Your task to perform on an android device: Do I have any events tomorrow? Image 0: 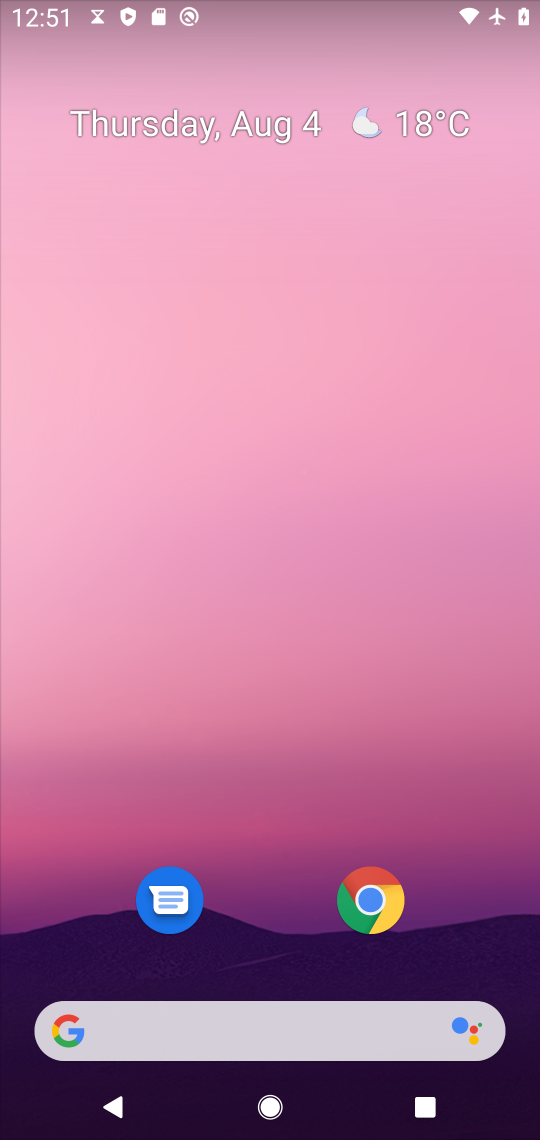
Step 0: press home button
Your task to perform on an android device: Do I have any events tomorrow? Image 1: 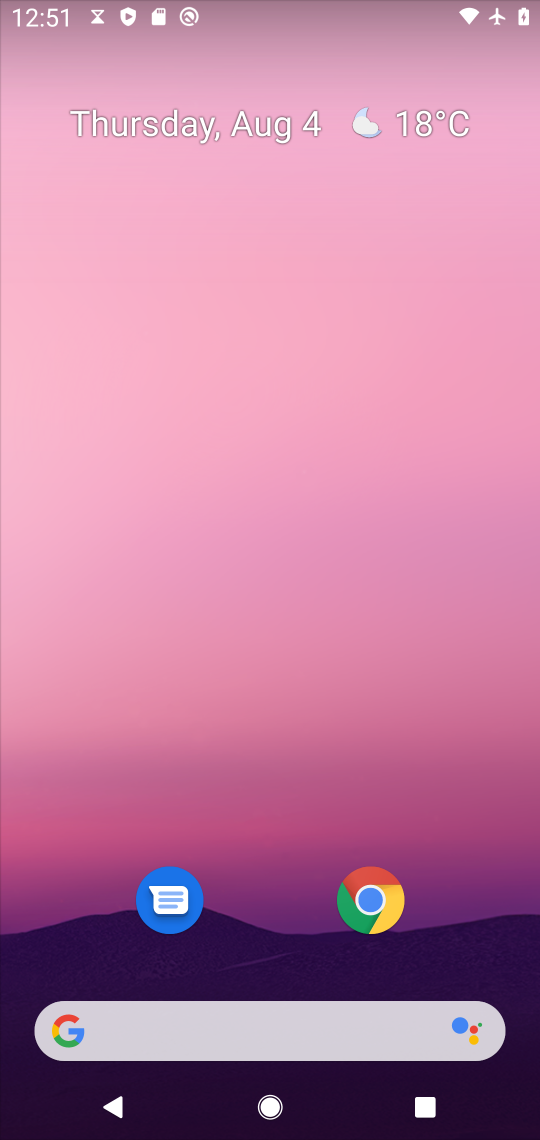
Step 1: drag from (281, 941) to (360, 134)
Your task to perform on an android device: Do I have any events tomorrow? Image 2: 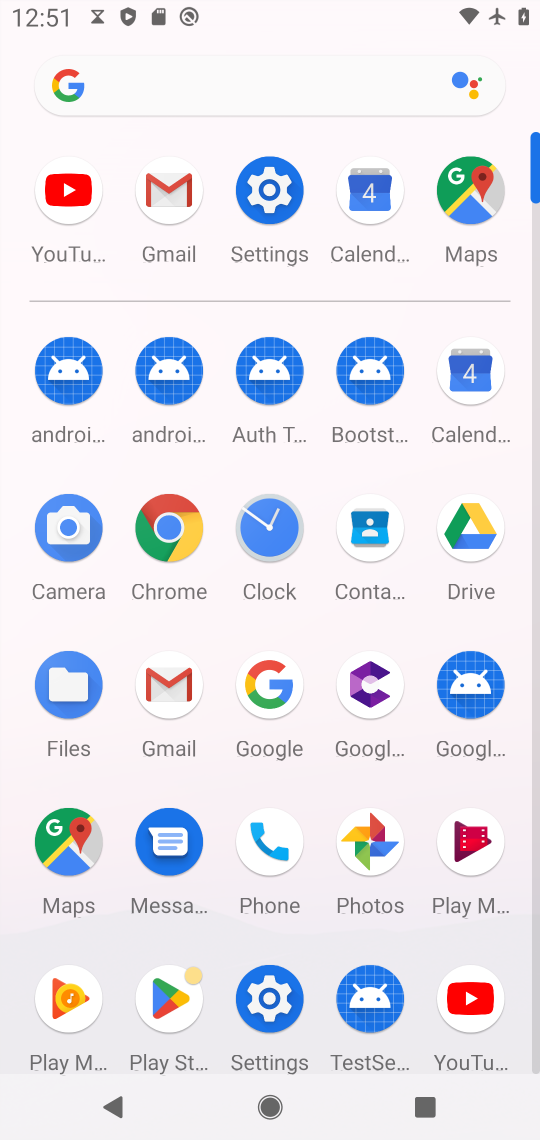
Step 2: click (470, 378)
Your task to perform on an android device: Do I have any events tomorrow? Image 3: 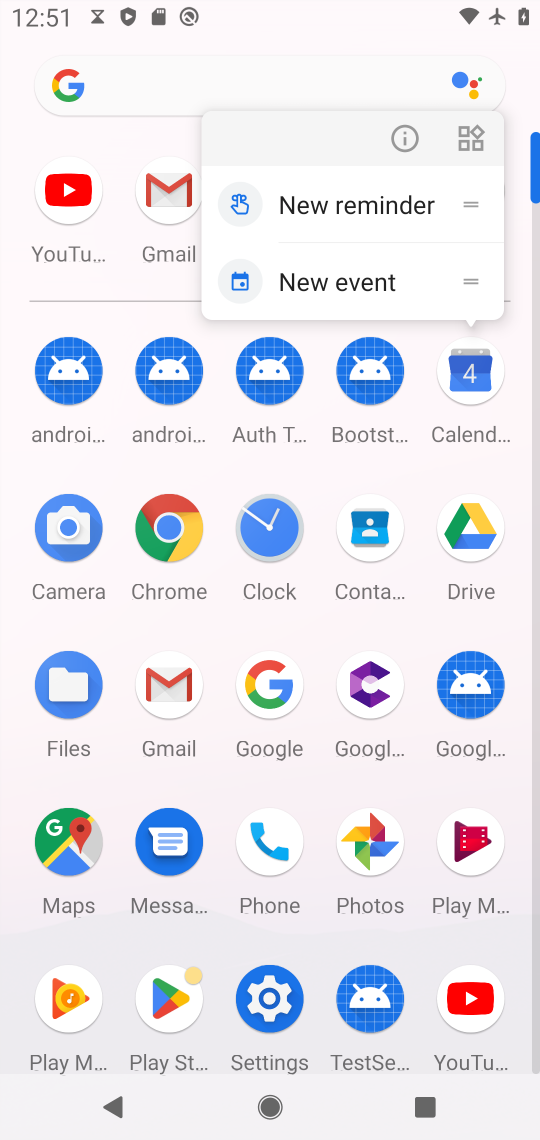
Step 3: click (476, 383)
Your task to perform on an android device: Do I have any events tomorrow? Image 4: 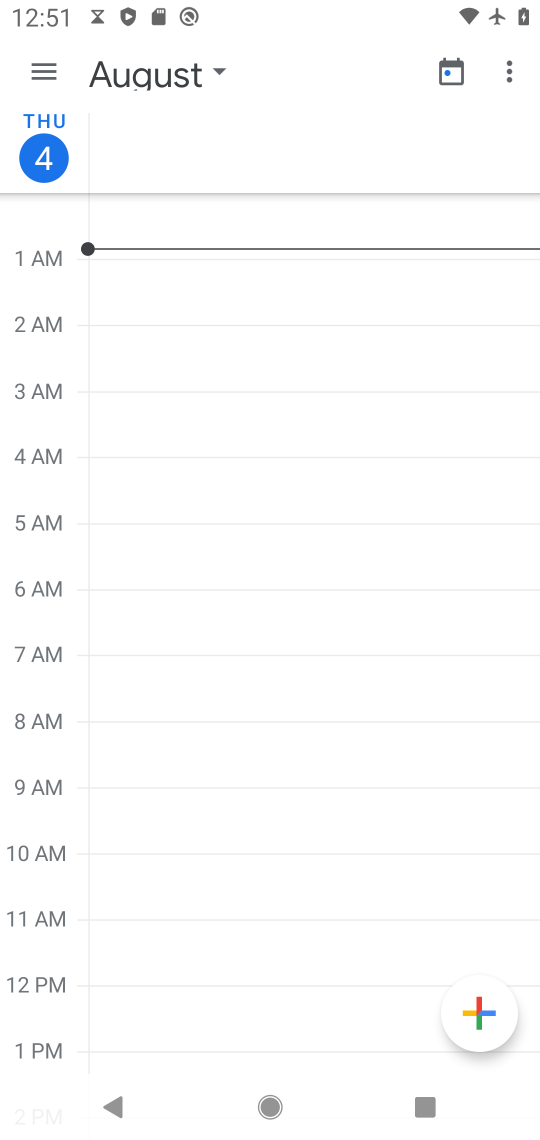
Step 4: click (44, 70)
Your task to perform on an android device: Do I have any events tomorrow? Image 5: 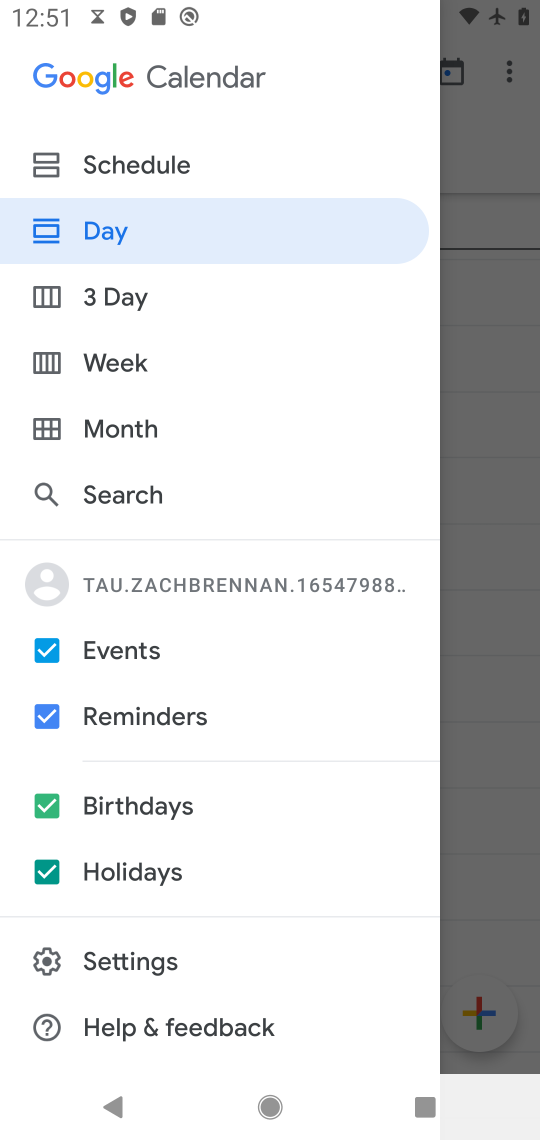
Step 5: click (114, 415)
Your task to perform on an android device: Do I have any events tomorrow? Image 6: 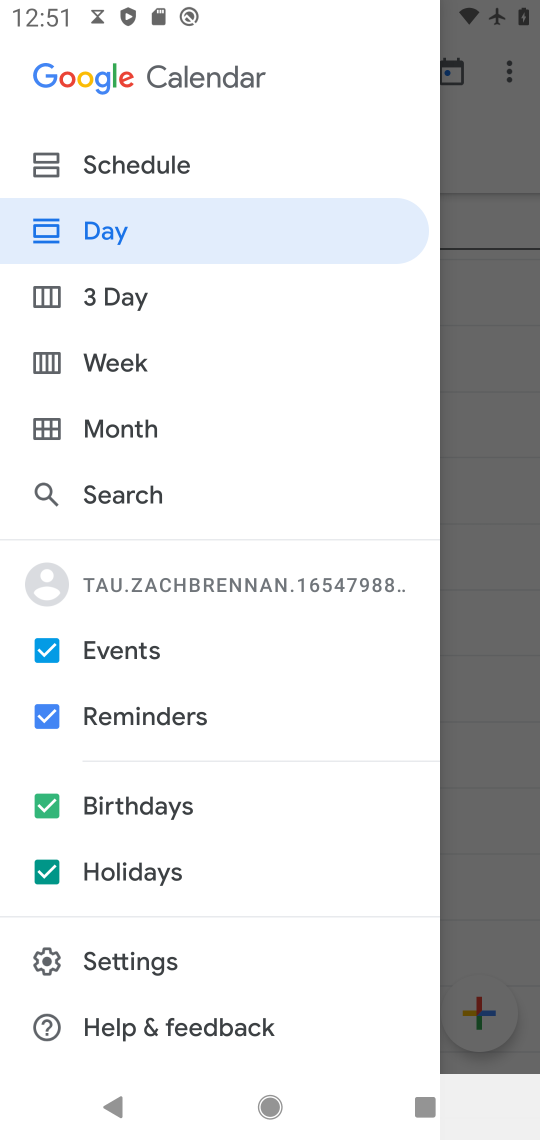
Step 6: click (461, 468)
Your task to perform on an android device: Do I have any events tomorrow? Image 7: 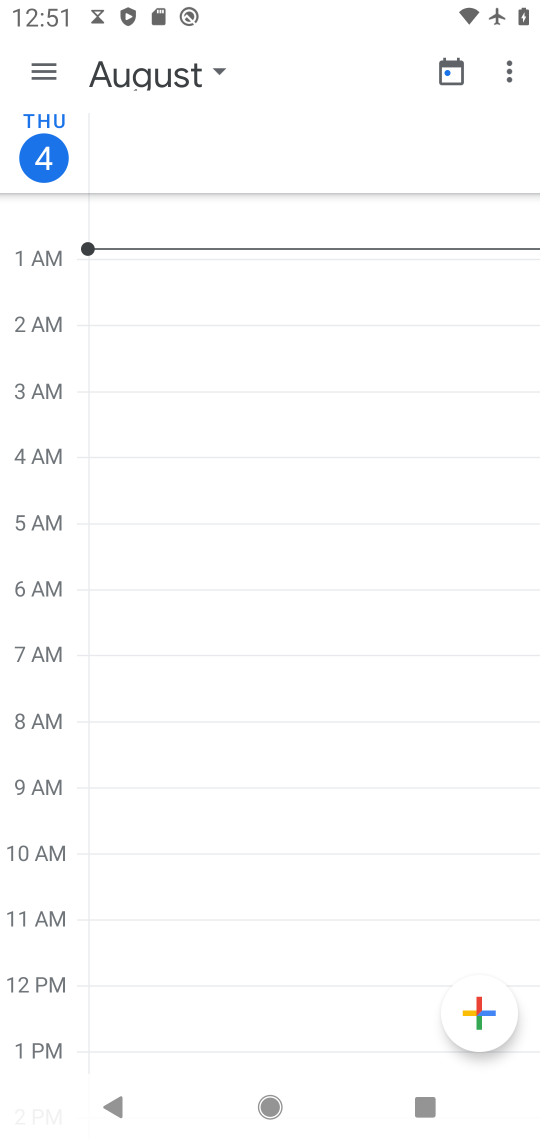
Step 7: click (217, 91)
Your task to perform on an android device: Do I have any events tomorrow? Image 8: 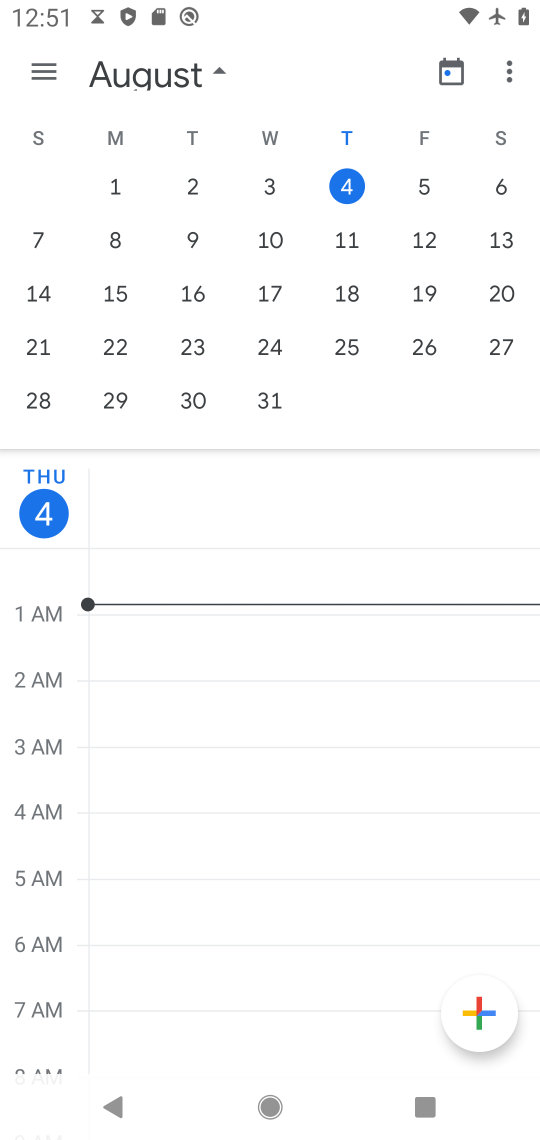
Step 8: click (429, 193)
Your task to perform on an android device: Do I have any events tomorrow? Image 9: 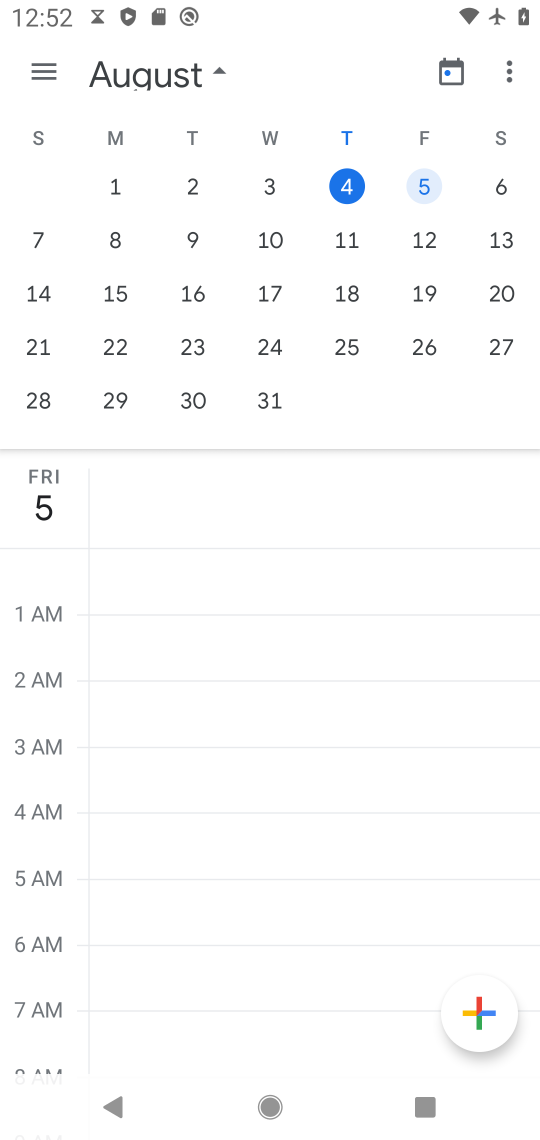
Step 9: task complete